Your task to perform on an android device: turn on notifications settings in the gmail app Image 0: 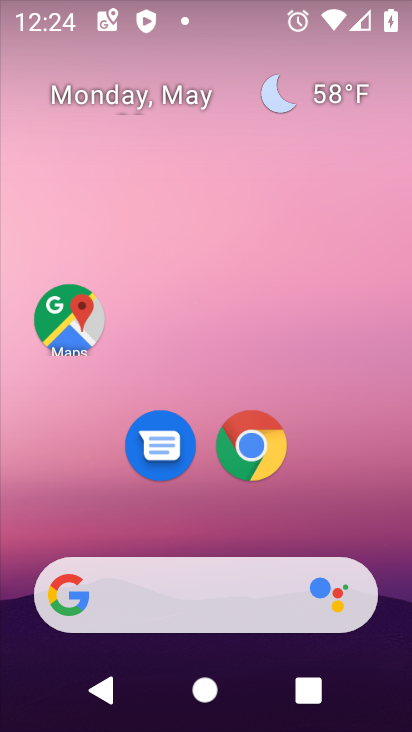
Step 0: drag from (224, 521) to (220, 102)
Your task to perform on an android device: turn on notifications settings in the gmail app Image 1: 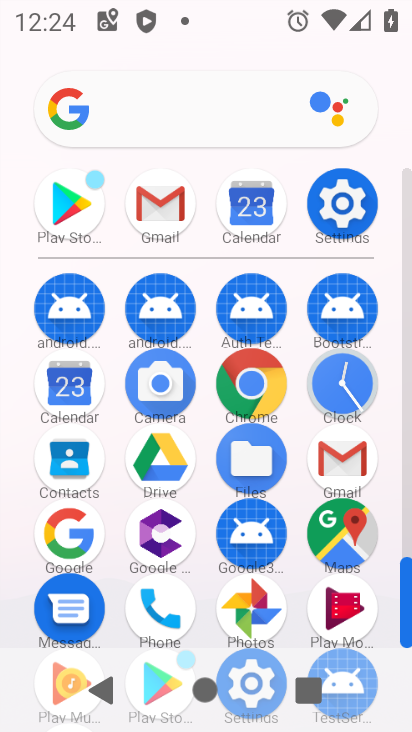
Step 1: click (161, 196)
Your task to perform on an android device: turn on notifications settings in the gmail app Image 2: 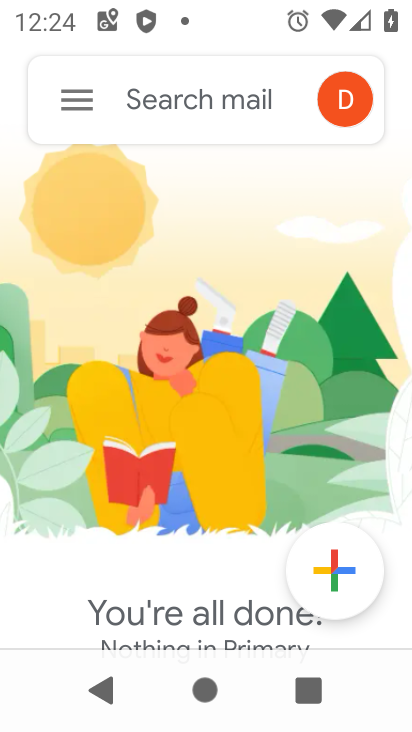
Step 2: click (78, 105)
Your task to perform on an android device: turn on notifications settings in the gmail app Image 3: 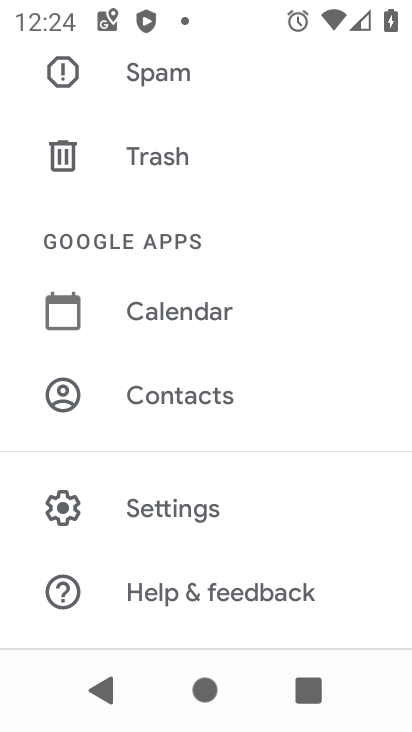
Step 3: click (105, 508)
Your task to perform on an android device: turn on notifications settings in the gmail app Image 4: 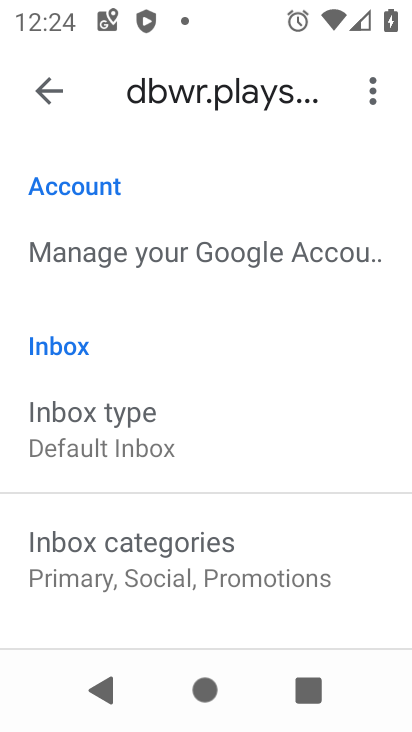
Step 4: click (53, 100)
Your task to perform on an android device: turn on notifications settings in the gmail app Image 5: 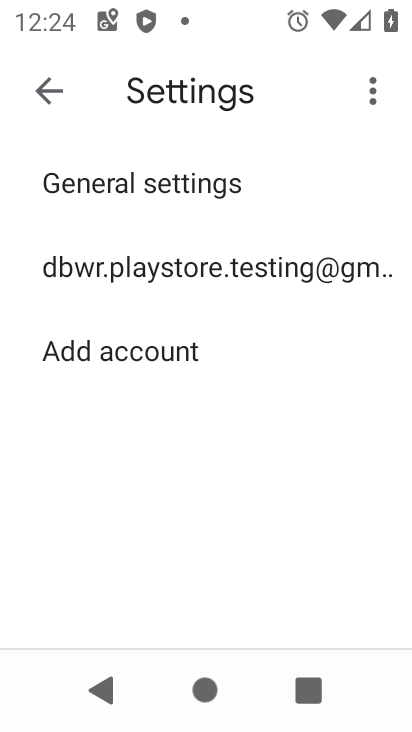
Step 5: click (255, 179)
Your task to perform on an android device: turn on notifications settings in the gmail app Image 6: 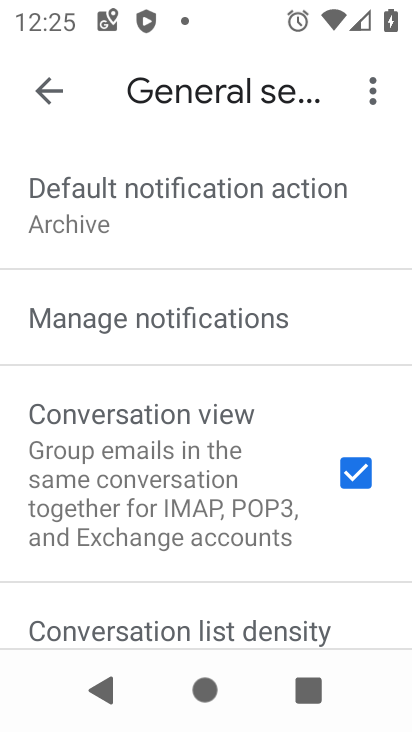
Step 6: click (290, 329)
Your task to perform on an android device: turn on notifications settings in the gmail app Image 7: 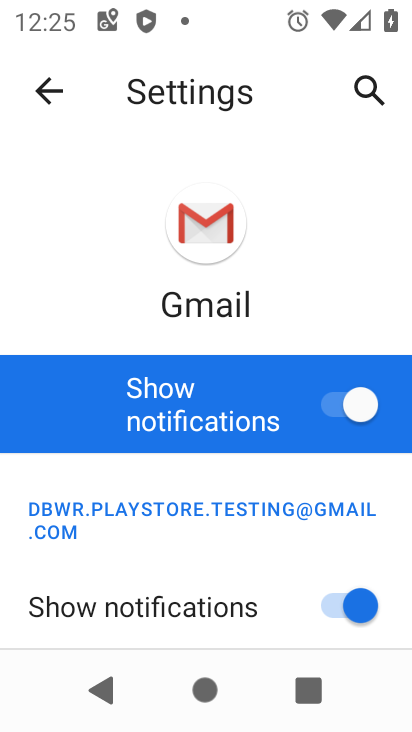
Step 7: click (339, 409)
Your task to perform on an android device: turn on notifications settings in the gmail app Image 8: 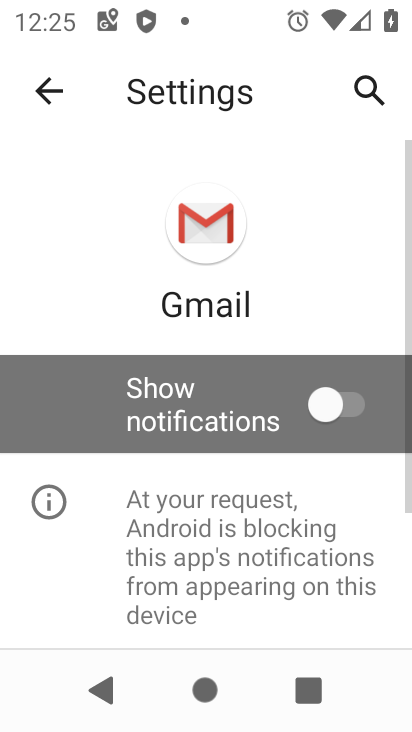
Step 8: task complete